Your task to perform on an android device: turn on priority inbox in the gmail app Image 0: 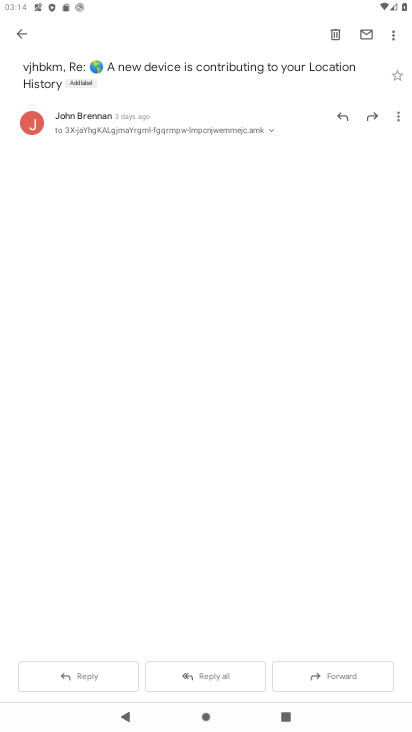
Step 0: press home button
Your task to perform on an android device: turn on priority inbox in the gmail app Image 1: 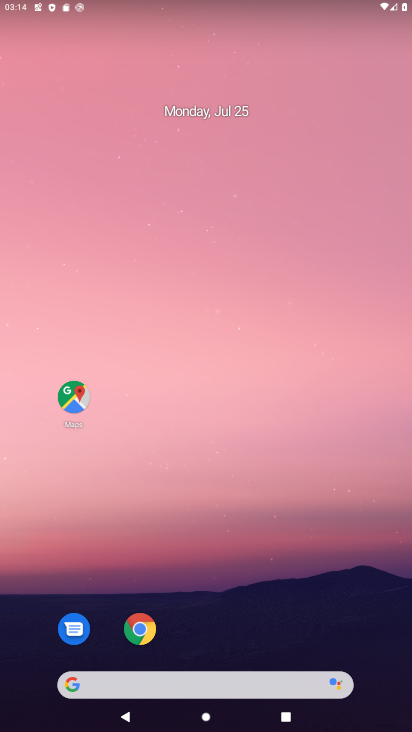
Step 1: drag from (340, 660) to (334, 3)
Your task to perform on an android device: turn on priority inbox in the gmail app Image 2: 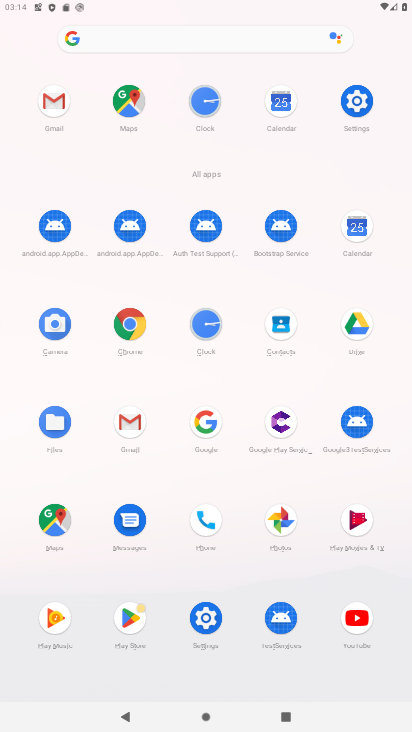
Step 2: click (59, 99)
Your task to perform on an android device: turn on priority inbox in the gmail app Image 3: 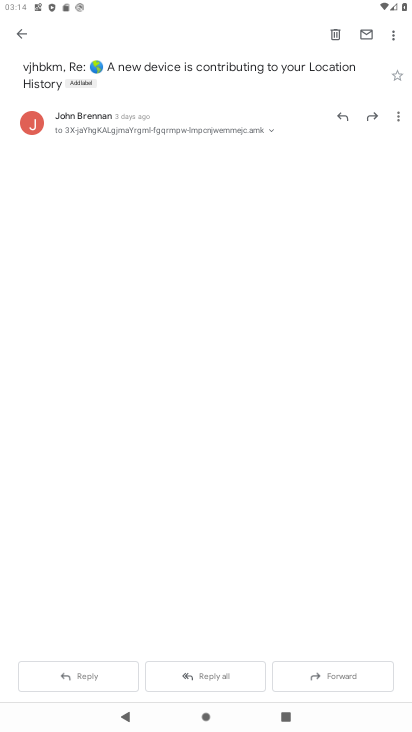
Step 3: click (25, 41)
Your task to perform on an android device: turn on priority inbox in the gmail app Image 4: 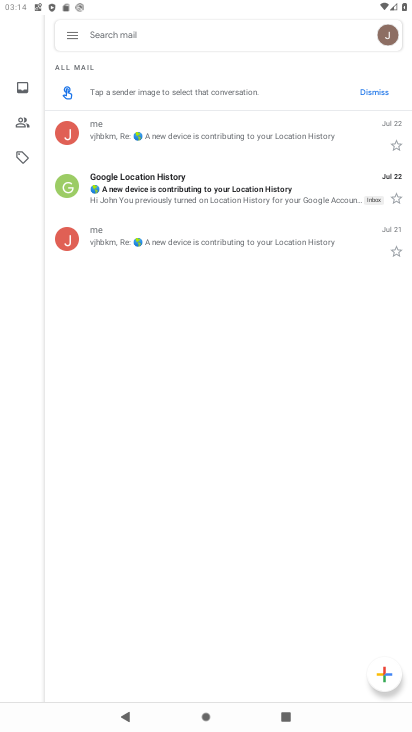
Step 4: click (76, 35)
Your task to perform on an android device: turn on priority inbox in the gmail app Image 5: 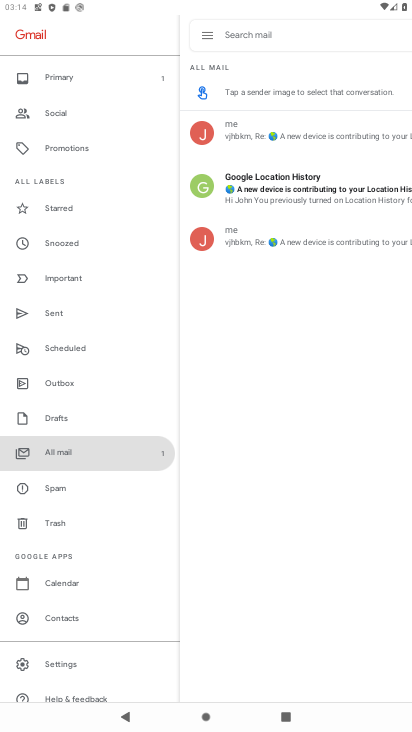
Step 5: click (42, 662)
Your task to perform on an android device: turn on priority inbox in the gmail app Image 6: 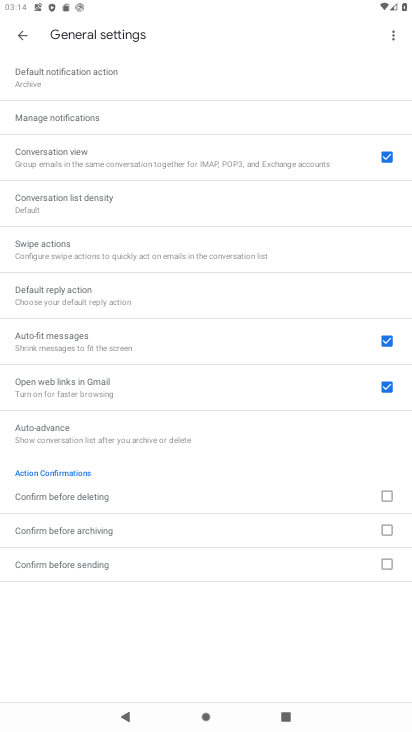
Step 6: click (21, 36)
Your task to perform on an android device: turn on priority inbox in the gmail app Image 7: 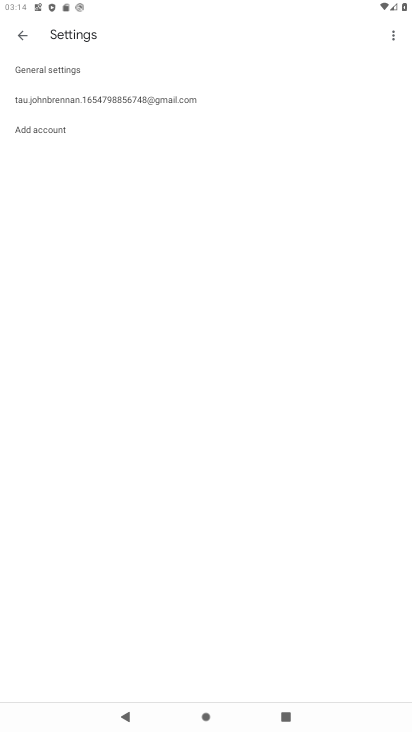
Step 7: click (26, 103)
Your task to perform on an android device: turn on priority inbox in the gmail app Image 8: 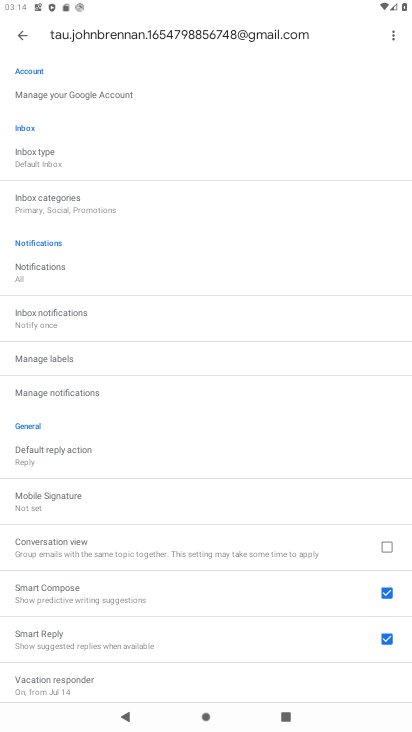
Step 8: click (45, 156)
Your task to perform on an android device: turn on priority inbox in the gmail app Image 9: 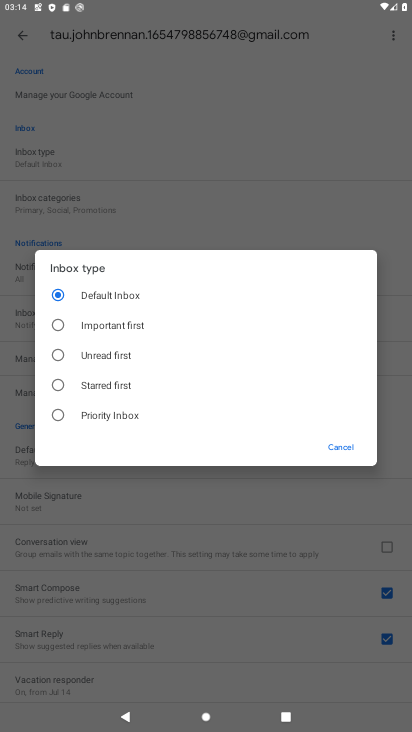
Step 9: click (52, 413)
Your task to perform on an android device: turn on priority inbox in the gmail app Image 10: 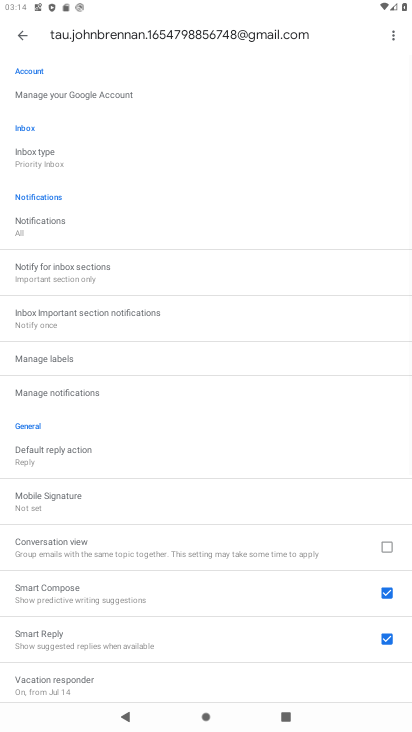
Step 10: task complete